Your task to perform on an android device: change text size in settings app Image 0: 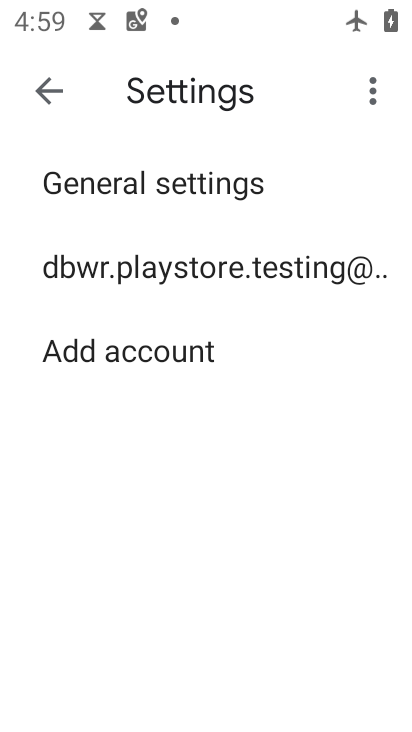
Step 0: press home button
Your task to perform on an android device: change text size in settings app Image 1: 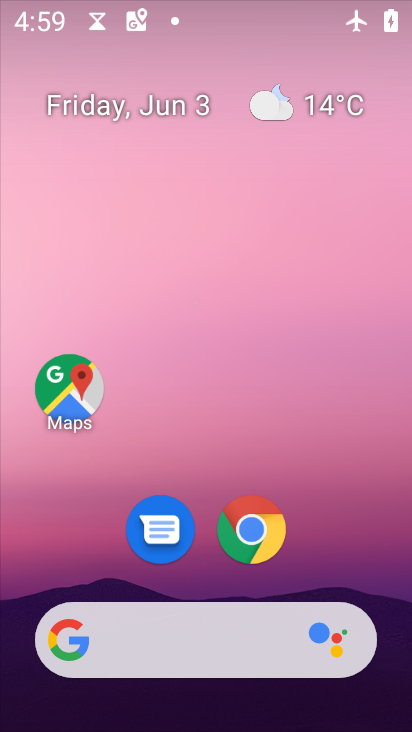
Step 1: drag from (355, 531) to (324, 56)
Your task to perform on an android device: change text size in settings app Image 2: 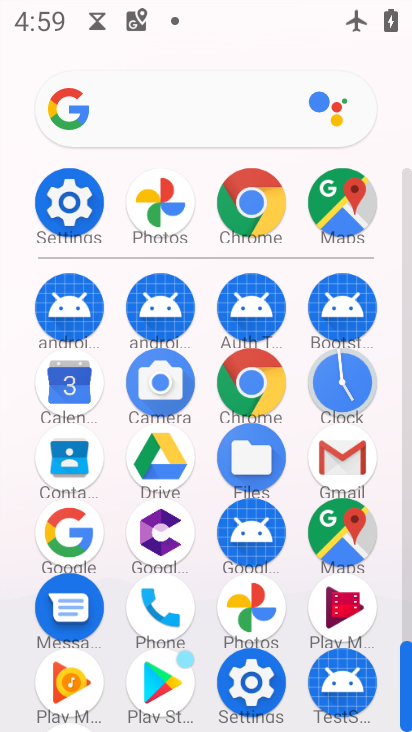
Step 2: click (74, 196)
Your task to perform on an android device: change text size in settings app Image 3: 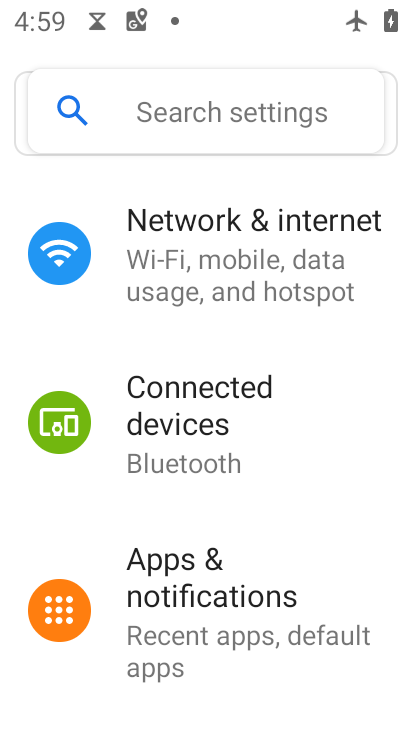
Step 3: drag from (296, 576) to (348, 193)
Your task to perform on an android device: change text size in settings app Image 4: 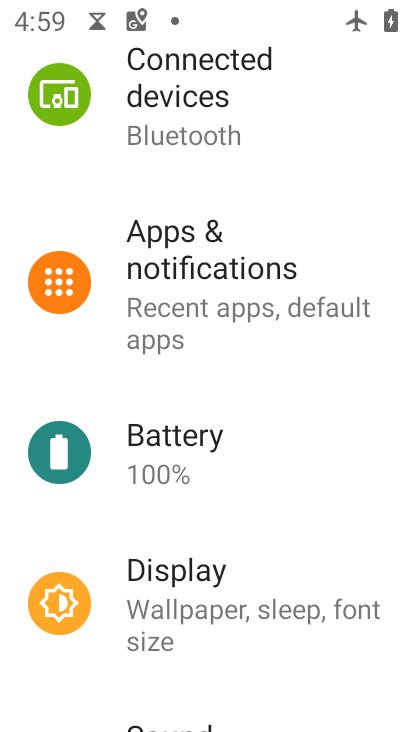
Step 4: drag from (247, 567) to (243, 299)
Your task to perform on an android device: change text size in settings app Image 5: 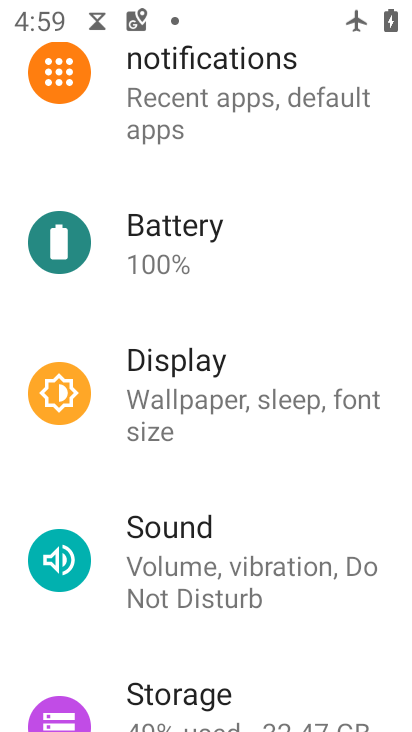
Step 5: click (213, 392)
Your task to perform on an android device: change text size in settings app Image 6: 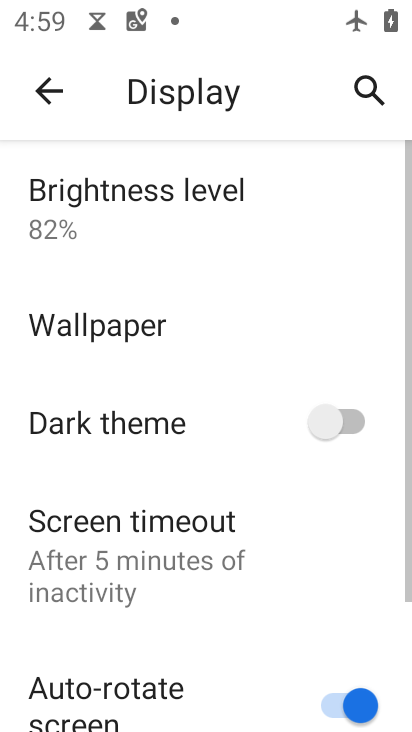
Step 6: drag from (171, 614) to (251, 198)
Your task to perform on an android device: change text size in settings app Image 7: 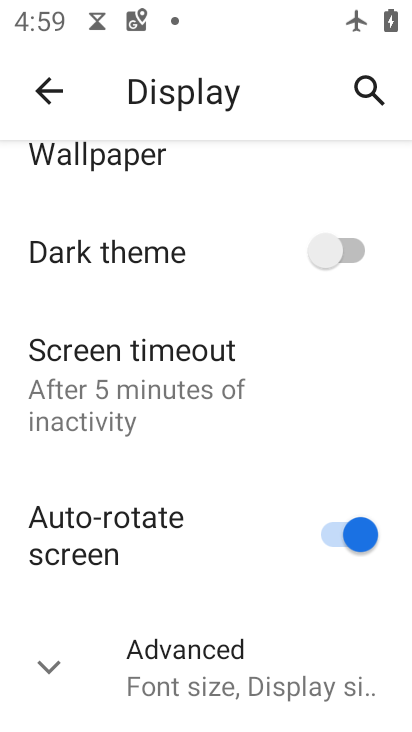
Step 7: click (196, 633)
Your task to perform on an android device: change text size in settings app Image 8: 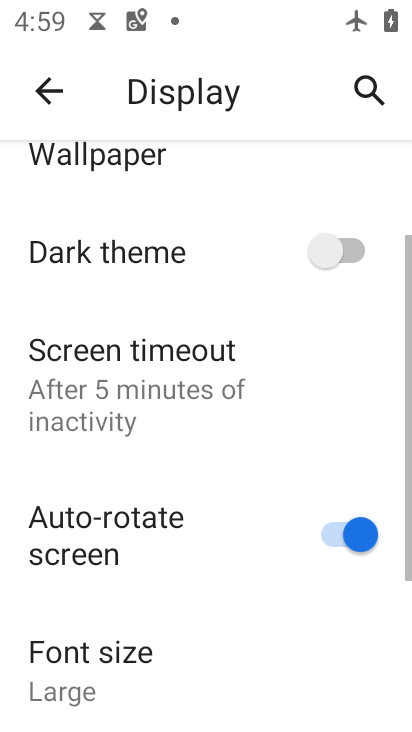
Step 8: drag from (199, 616) to (252, 185)
Your task to perform on an android device: change text size in settings app Image 9: 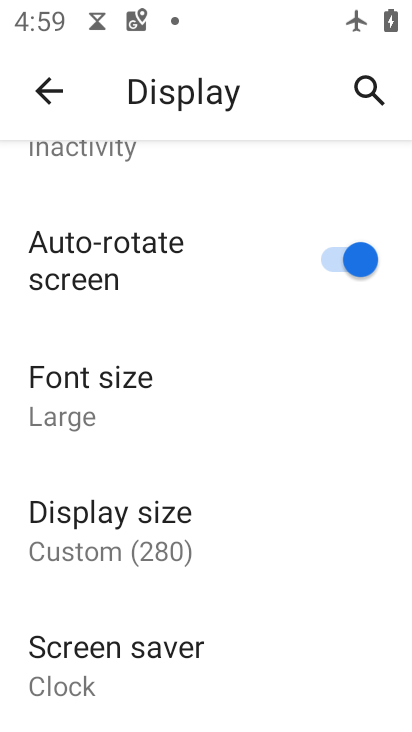
Step 9: click (71, 393)
Your task to perform on an android device: change text size in settings app Image 10: 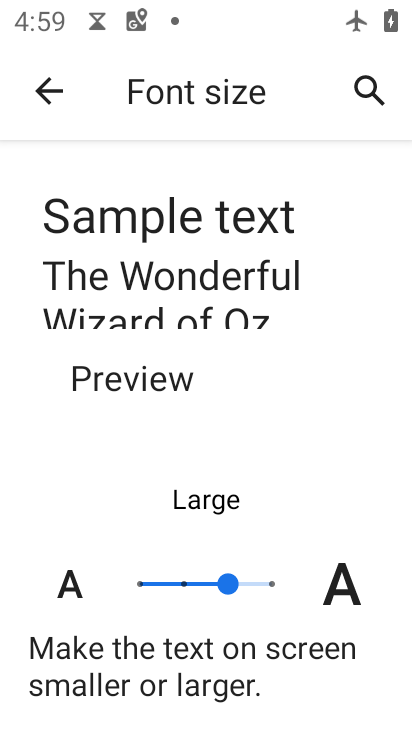
Step 10: click (199, 589)
Your task to perform on an android device: change text size in settings app Image 11: 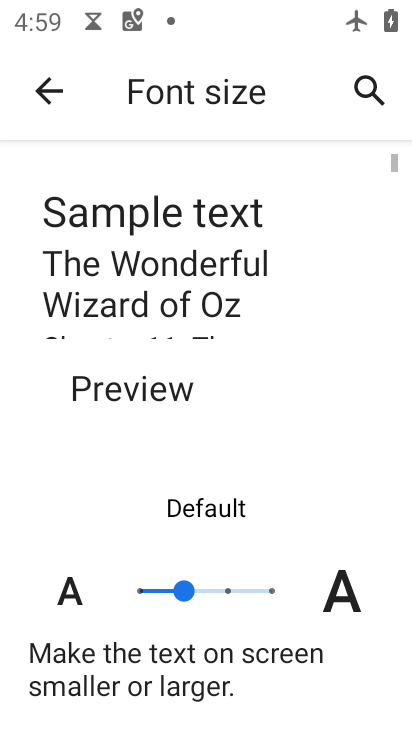
Step 11: task complete